Your task to perform on an android device: Find coffee shops on Maps Image 0: 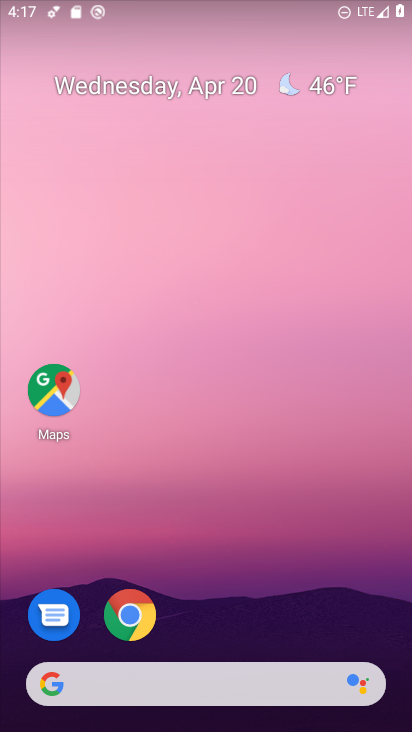
Step 0: click (57, 377)
Your task to perform on an android device: Find coffee shops on Maps Image 1: 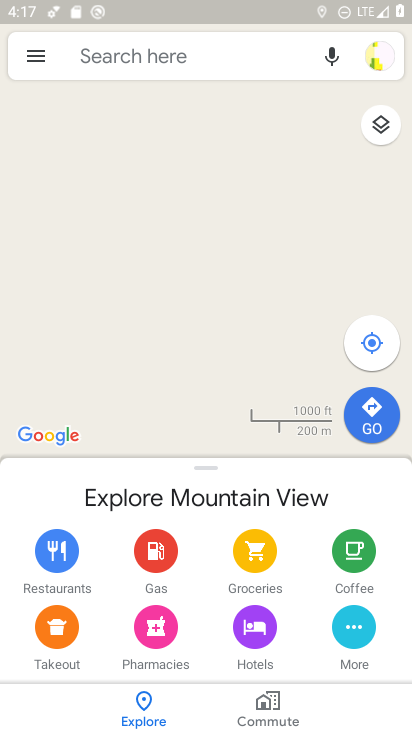
Step 1: click (135, 52)
Your task to perform on an android device: Find coffee shops on Maps Image 2: 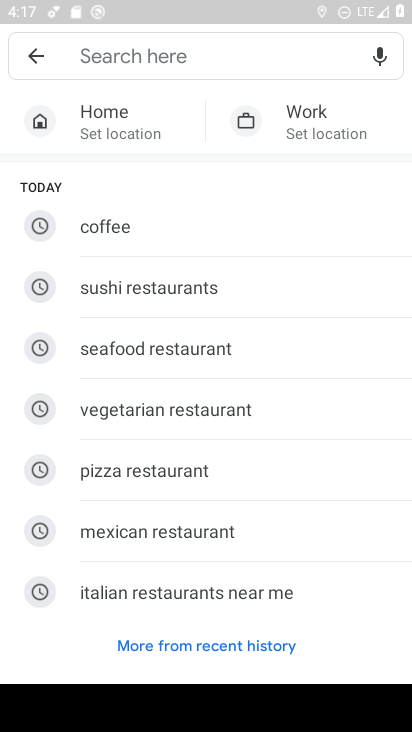
Step 2: click (116, 220)
Your task to perform on an android device: Find coffee shops on Maps Image 3: 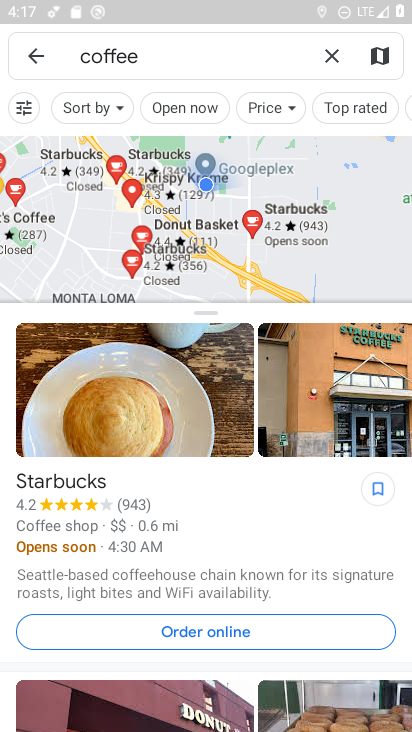
Step 3: task complete